Your task to perform on an android device: Show me popular videos on Youtube Image 0: 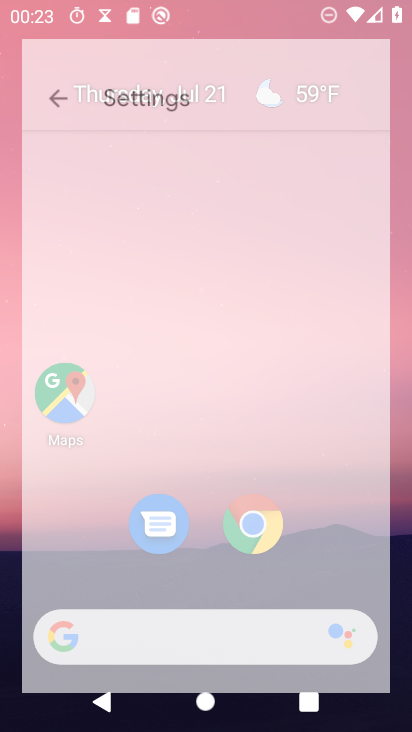
Step 0: press home button
Your task to perform on an android device: Show me popular videos on Youtube Image 1: 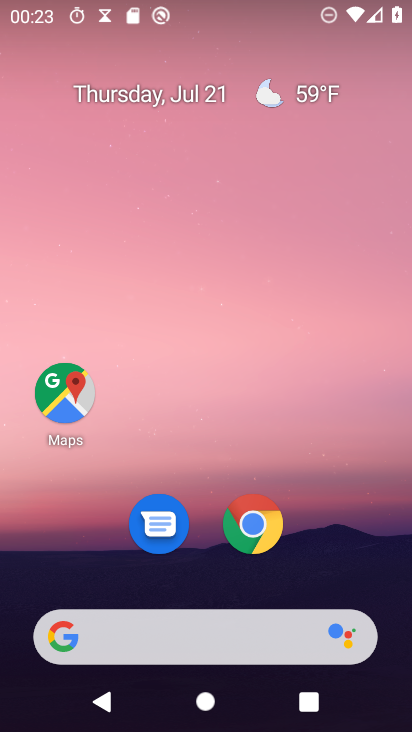
Step 1: drag from (171, 652) to (282, 79)
Your task to perform on an android device: Show me popular videos on Youtube Image 2: 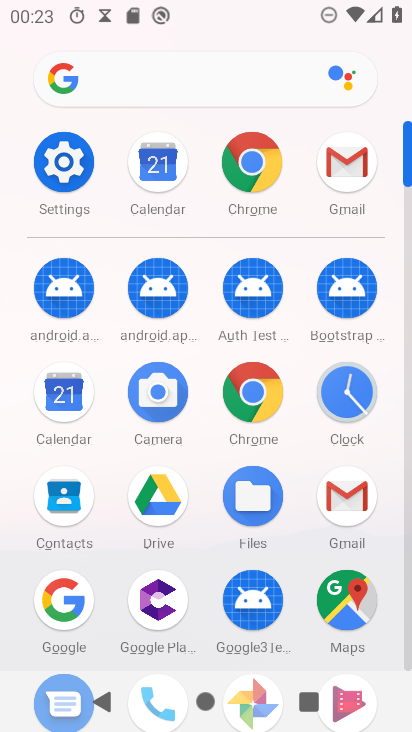
Step 2: drag from (186, 601) to (313, 93)
Your task to perform on an android device: Show me popular videos on Youtube Image 3: 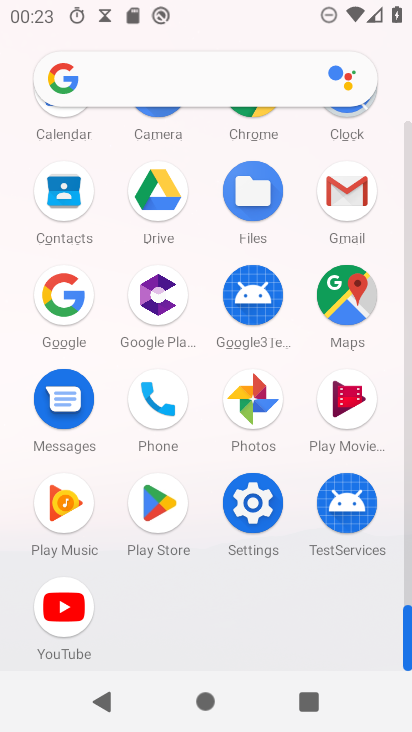
Step 3: click (62, 607)
Your task to perform on an android device: Show me popular videos on Youtube Image 4: 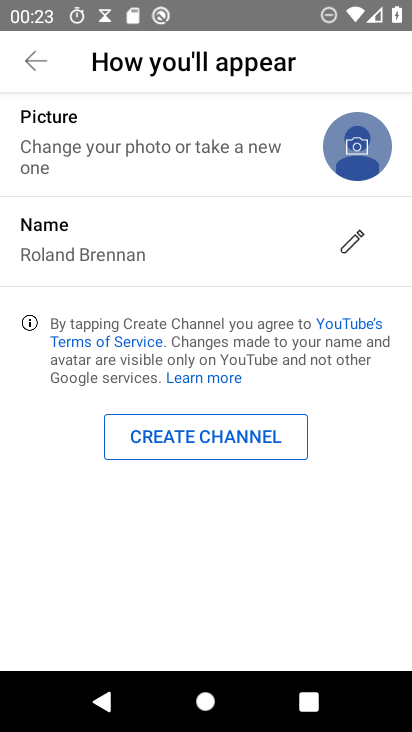
Step 4: click (36, 51)
Your task to perform on an android device: Show me popular videos on Youtube Image 5: 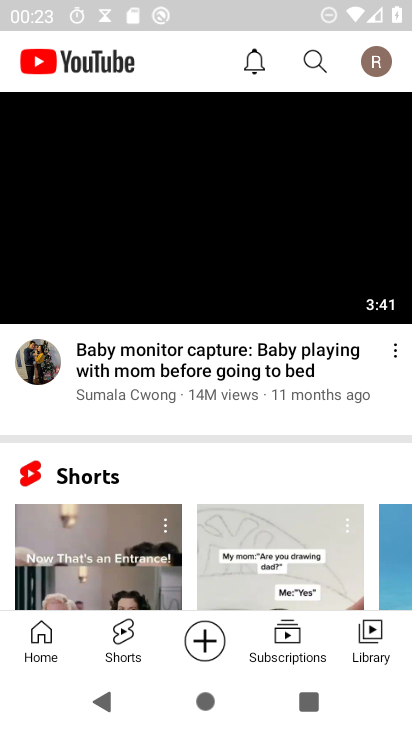
Step 5: task complete